Your task to perform on an android device: turn off notifications settings in the gmail app Image 0: 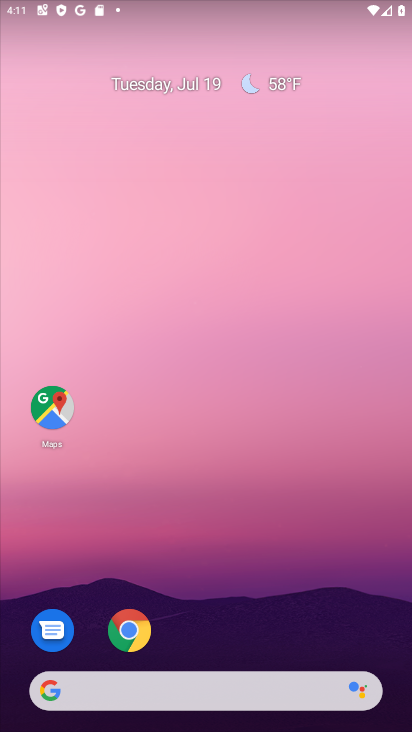
Step 0: press home button
Your task to perform on an android device: turn off notifications settings in the gmail app Image 1: 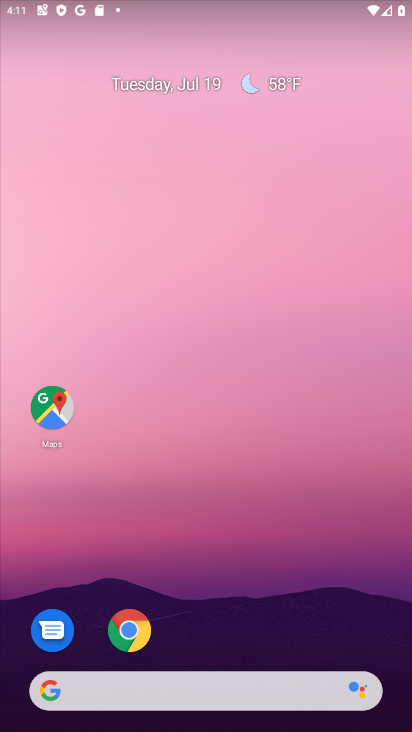
Step 1: drag from (315, 631) to (327, 40)
Your task to perform on an android device: turn off notifications settings in the gmail app Image 2: 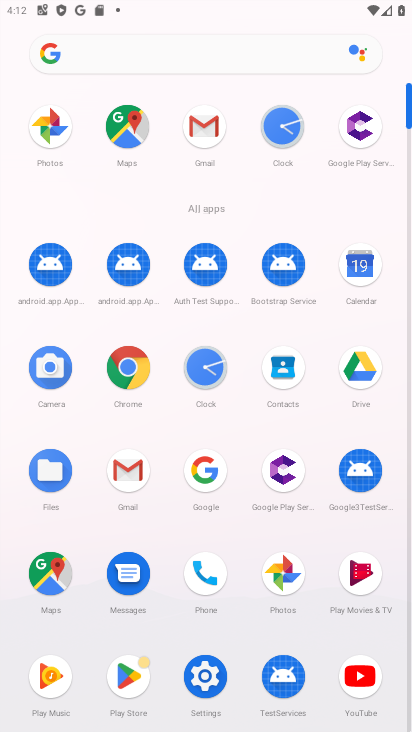
Step 2: click (201, 124)
Your task to perform on an android device: turn off notifications settings in the gmail app Image 3: 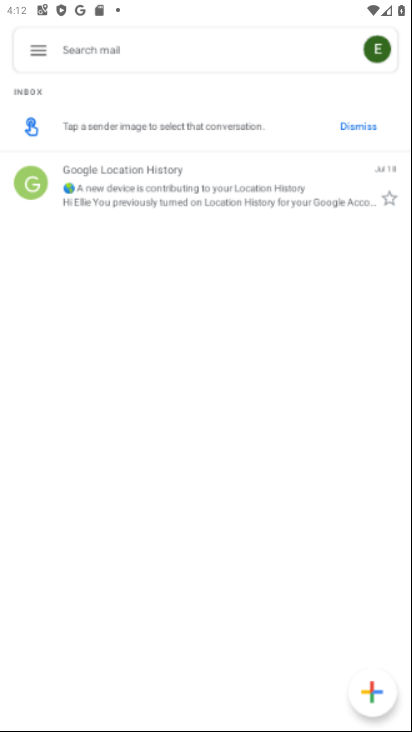
Step 3: click (37, 41)
Your task to perform on an android device: turn off notifications settings in the gmail app Image 4: 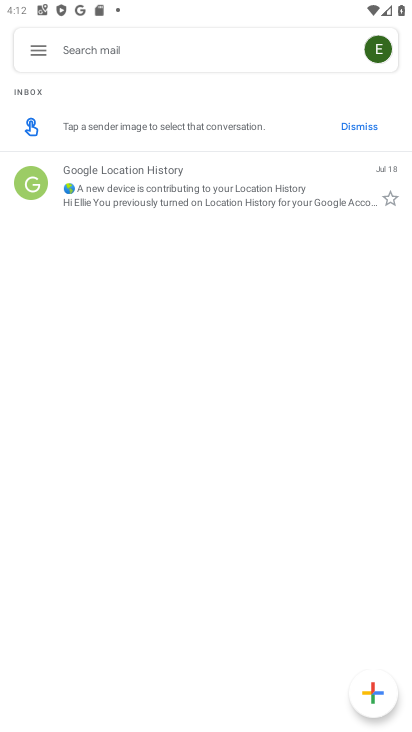
Step 4: click (37, 52)
Your task to perform on an android device: turn off notifications settings in the gmail app Image 5: 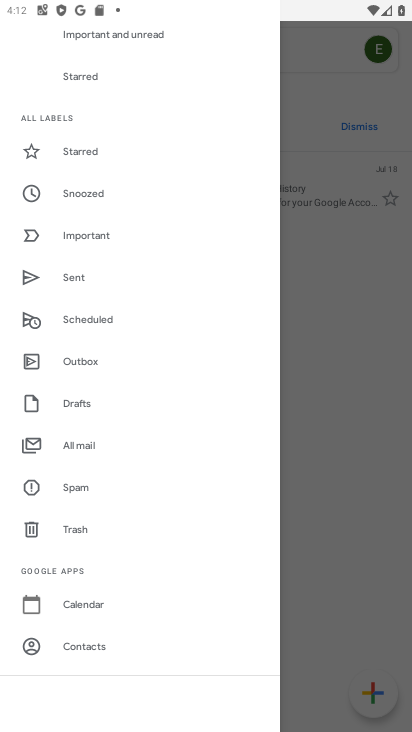
Step 5: drag from (121, 565) to (105, 271)
Your task to perform on an android device: turn off notifications settings in the gmail app Image 6: 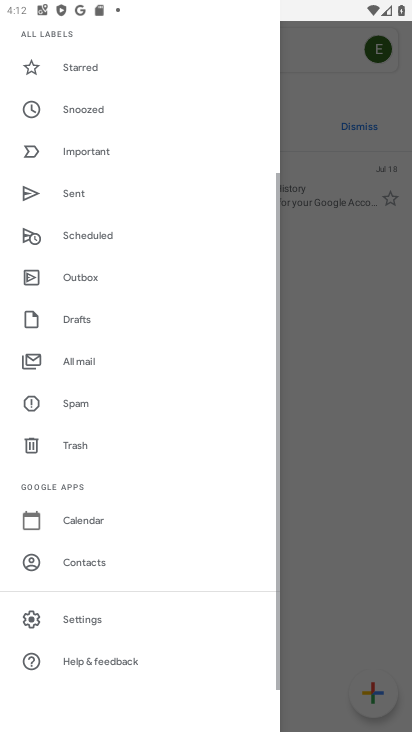
Step 6: click (82, 620)
Your task to perform on an android device: turn off notifications settings in the gmail app Image 7: 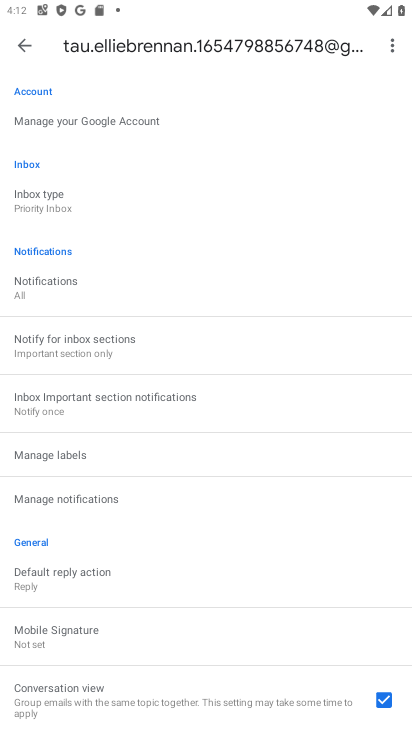
Step 7: click (58, 501)
Your task to perform on an android device: turn off notifications settings in the gmail app Image 8: 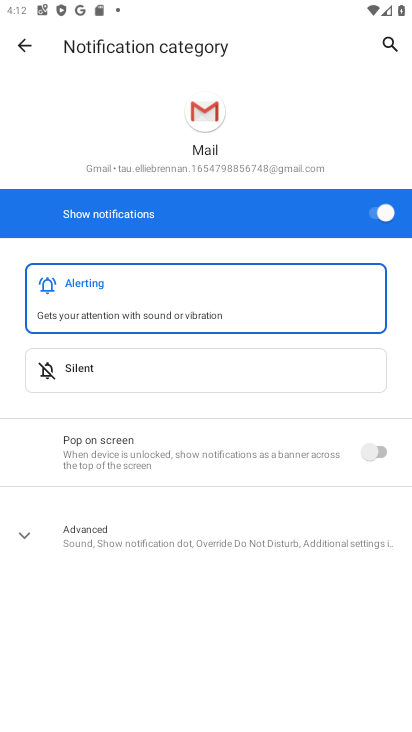
Step 8: click (381, 207)
Your task to perform on an android device: turn off notifications settings in the gmail app Image 9: 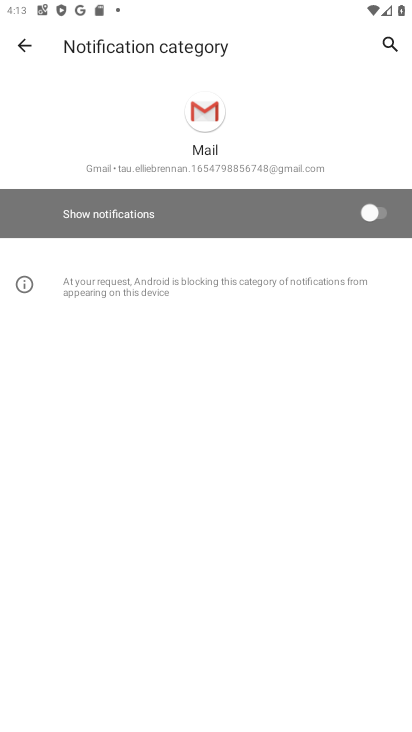
Step 9: task complete